Your task to perform on an android device: Do I have any events today? Image 0: 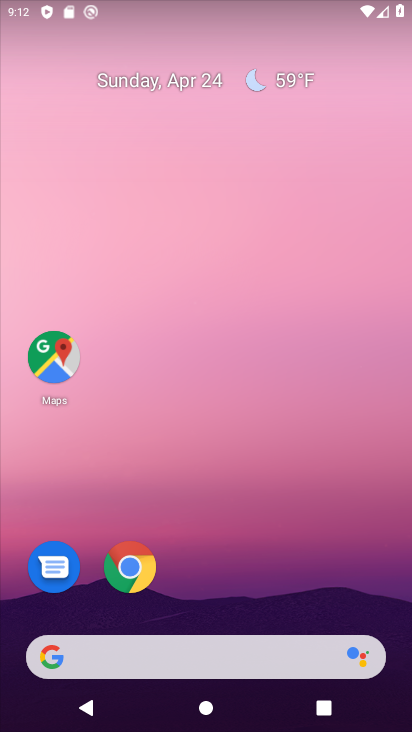
Step 0: click (315, 116)
Your task to perform on an android device: Do I have any events today? Image 1: 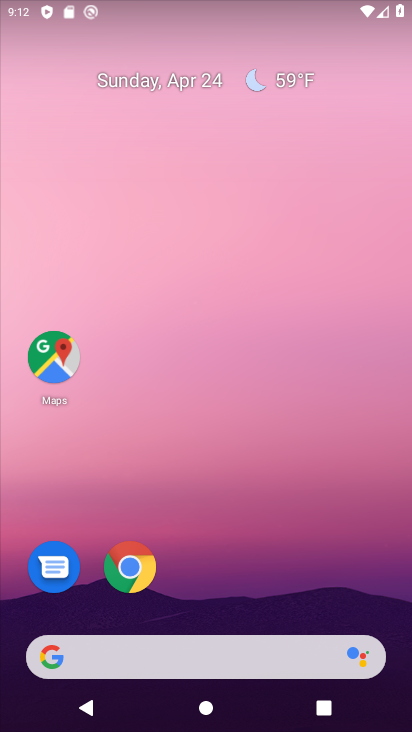
Step 1: drag from (396, 578) to (374, 8)
Your task to perform on an android device: Do I have any events today? Image 2: 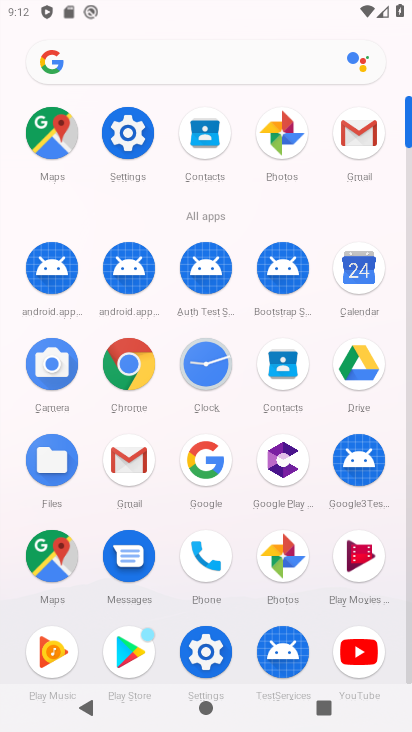
Step 2: click (356, 270)
Your task to perform on an android device: Do I have any events today? Image 3: 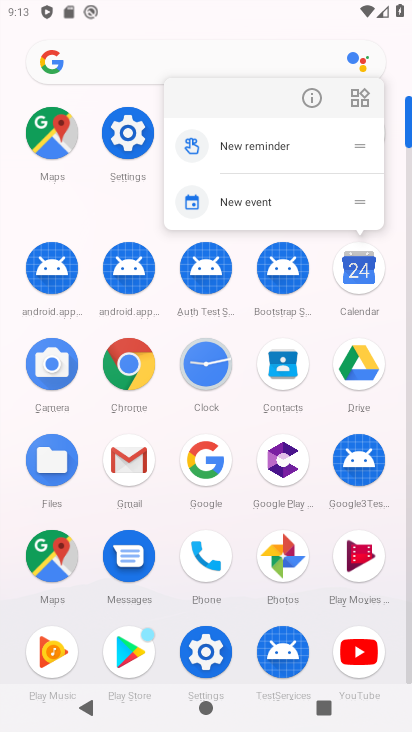
Step 3: click (349, 267)
Your task to perform on an android device: Do I have any events today? Image 4: 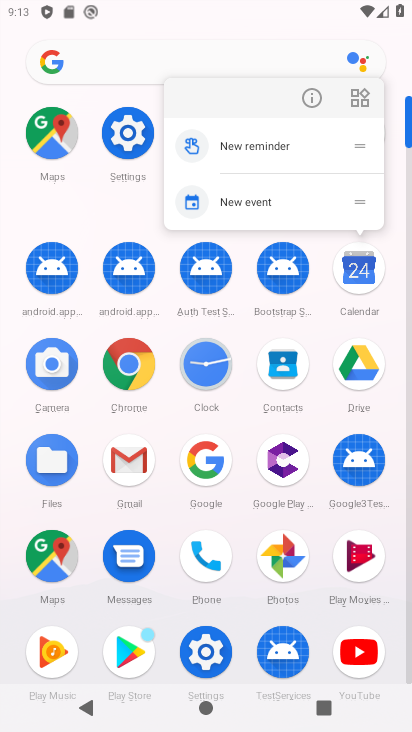
Step 4: click (349, 267)
Your task to perform on an android device: Do I have any events today? Image 5: 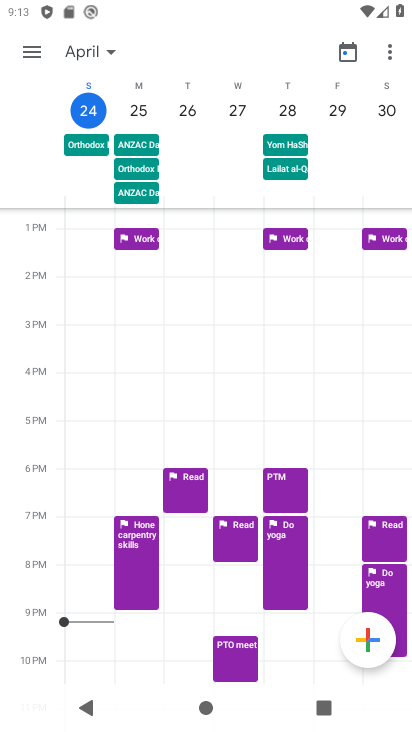
Step 5: click (90, 107)
Your task to perform on an android device: Do I have any events today? Image 6: 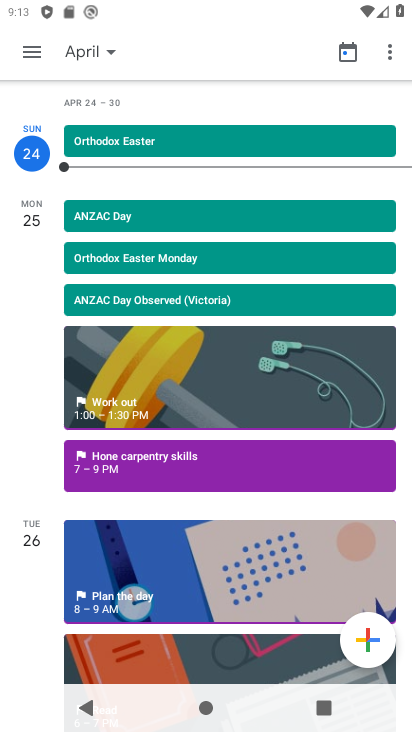
Step 6: task complete